Your task to perform on an android device: change the clock display to digital Image 0: 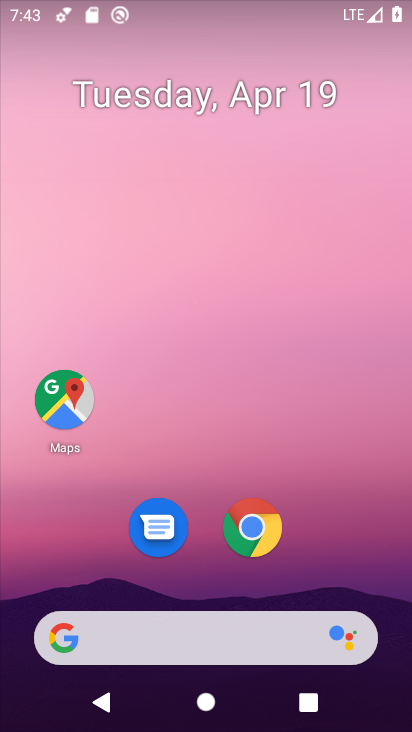
Step 0: drag from (359, 548) to (353, 136)
Your task to perform on an android device: change the clock display to digital Image 1: 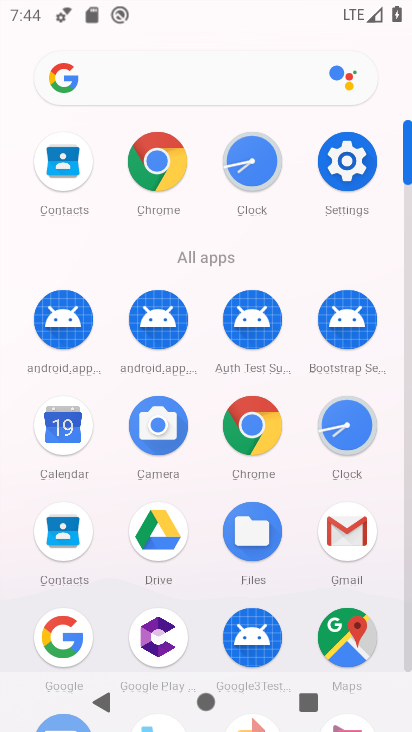
Step 1: click (357, 423)
Your task to perform on an android device: change the clock display to digital Image 2: 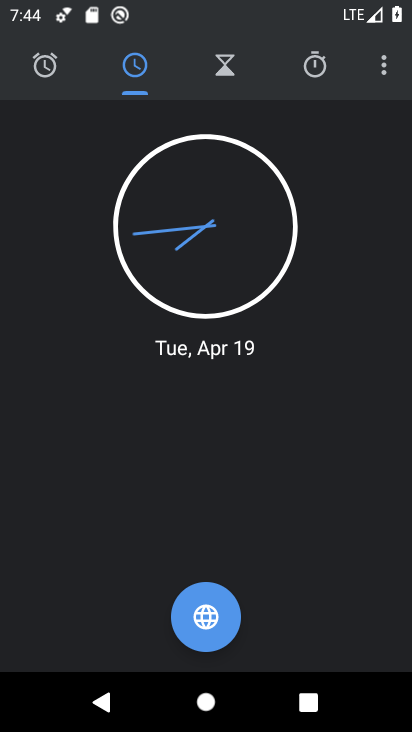
Step 2: click (390, 65)
Your task to perform on an android device: change the clock display to digital Image 3: 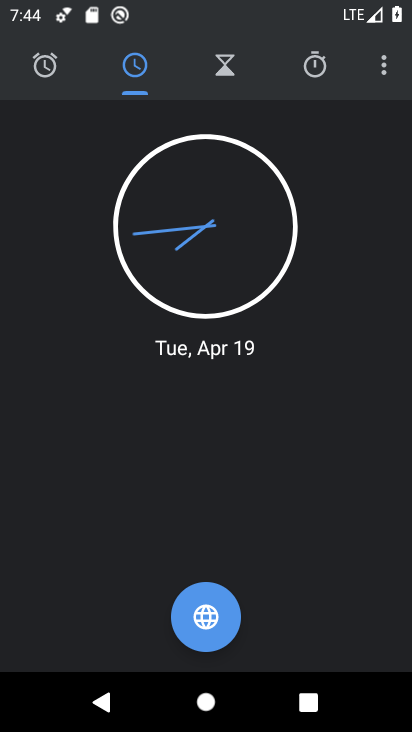
Step 3: click (387, 69)
Your task to perform on an android device: change the clock display to digital Image 4: 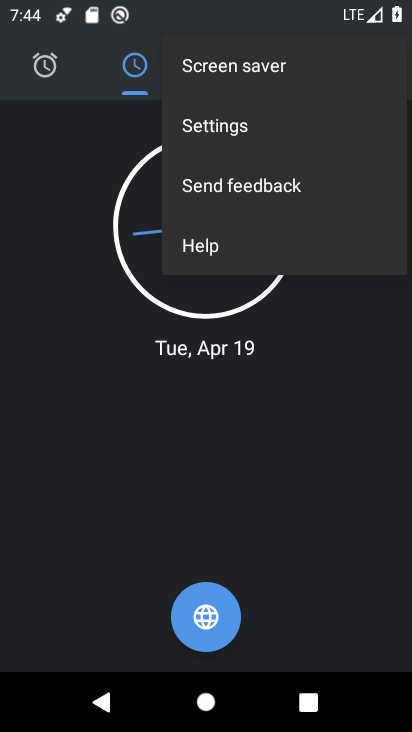
Step 4: click (231, 134)
Your task to perform on an android device: change the clock display to digital Image 5: 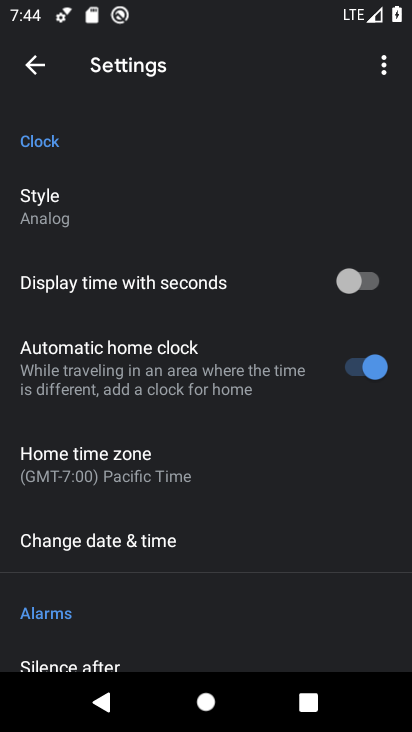
Step 5: click (110, 210)
Your task to perform on an android device: change the clock display to digital Image 6: 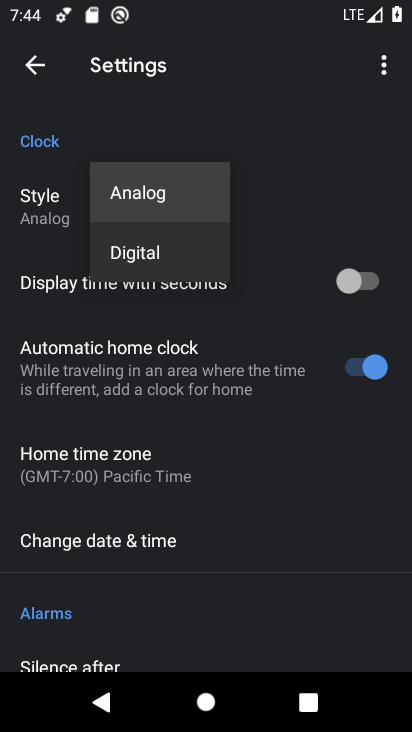
Step 6: click (144, 251)
Your task to perform on an android device: change the clock display to digital Image 7: 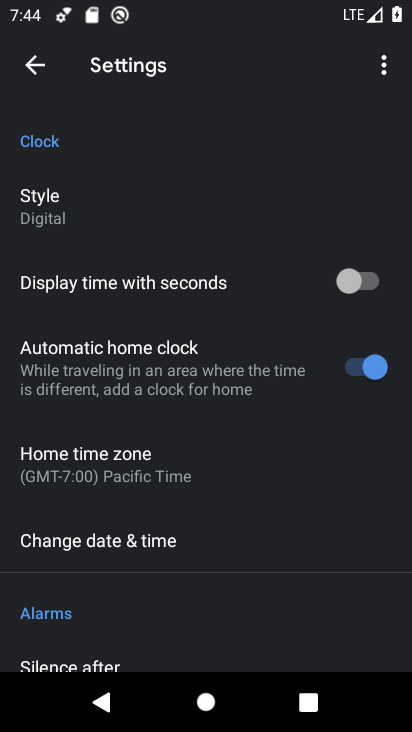
Step 7: task complete